Your task to perform on an android device: Is it going to rain today? Image 0: 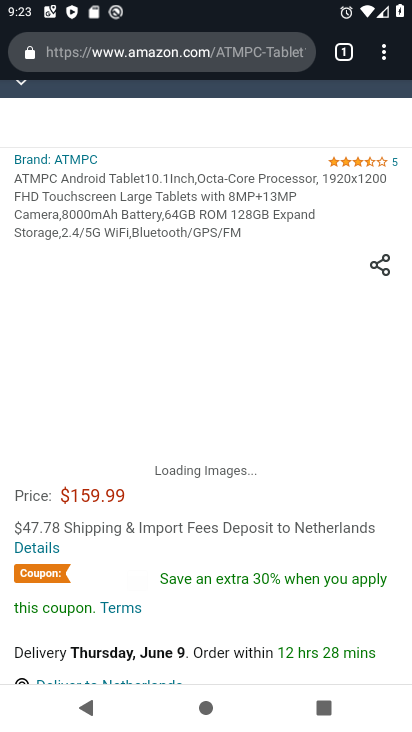
Step 0: press home button
Your task to perform on an android device: Is it going to rain today? Image 1: 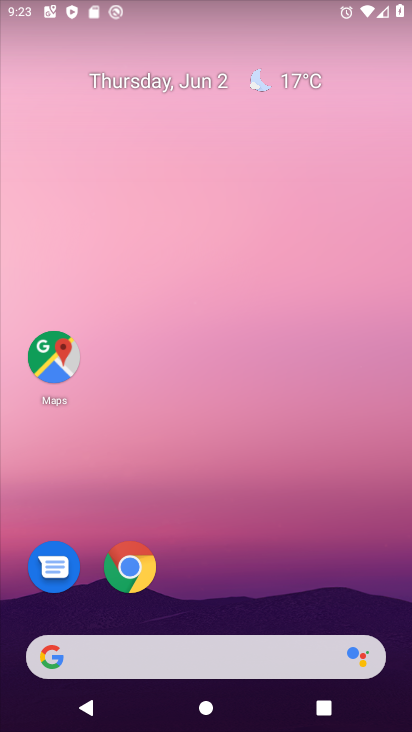
Step 1: click (278, 87)
Your task to perform on an android device: Is it going to rain today? Image 2: 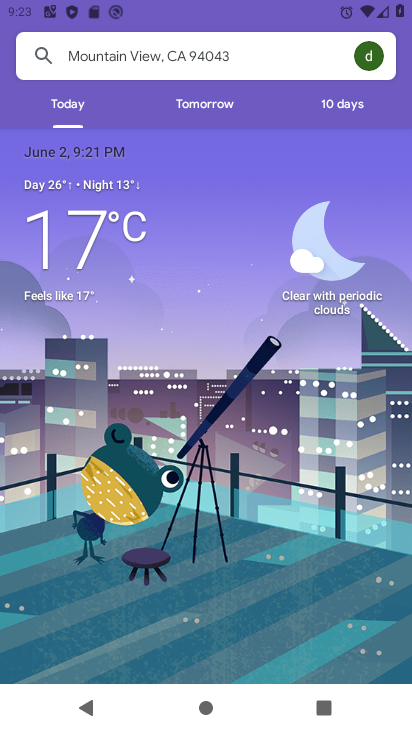
Step 2: task complete